Your task to perform on an android device: turn on translation in the chrome app Image 0: 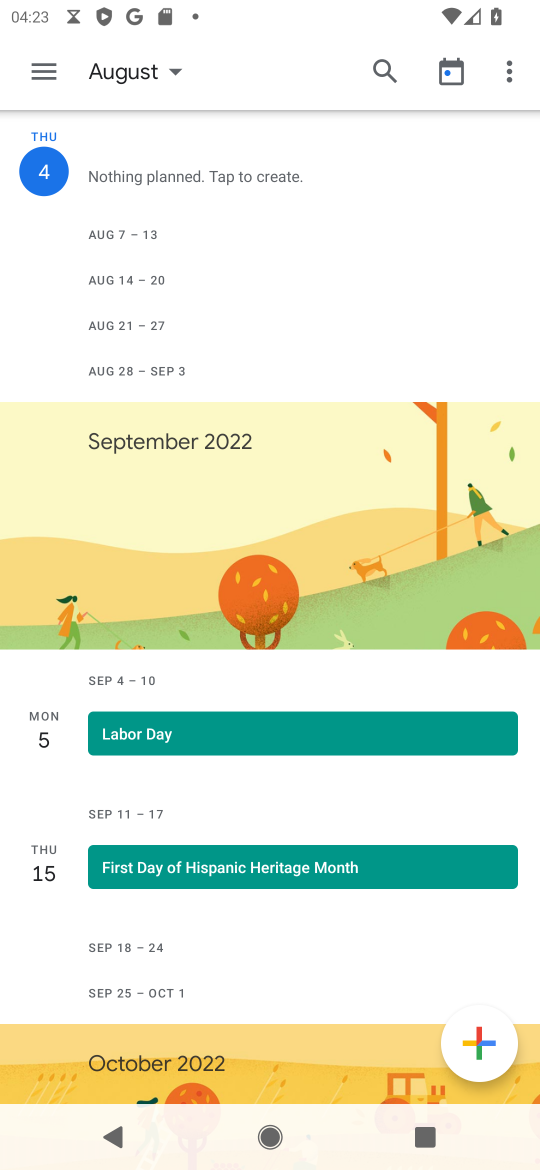
Step 0: press home button
Your task to perform on an android device: turn on translation in the chrome app Image 1: 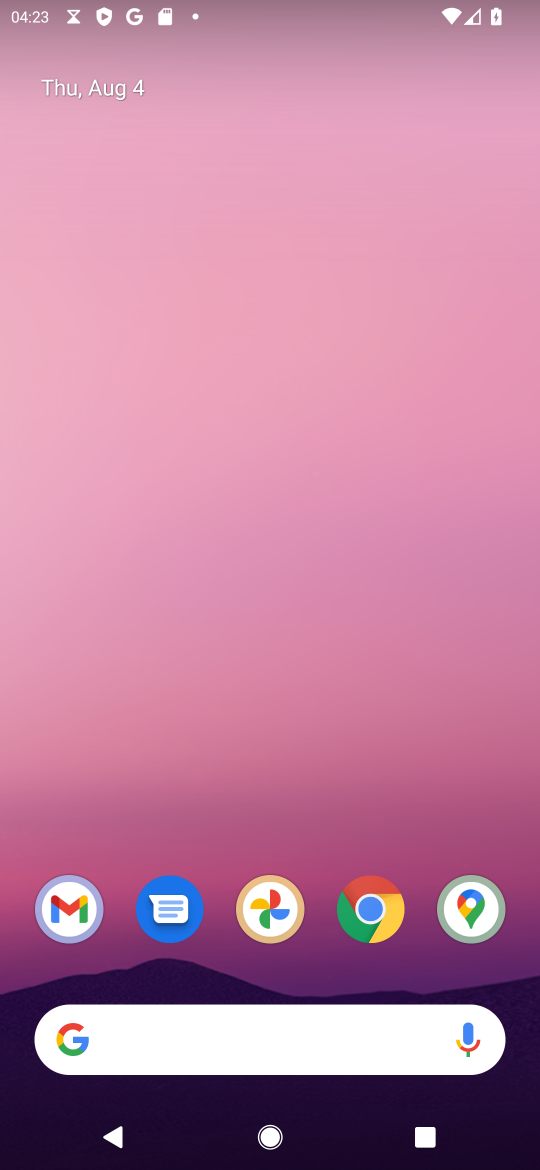
Step 1: click (376, 911)
Your task to perform on an android device: turn on translation in the chrome app Image 2: 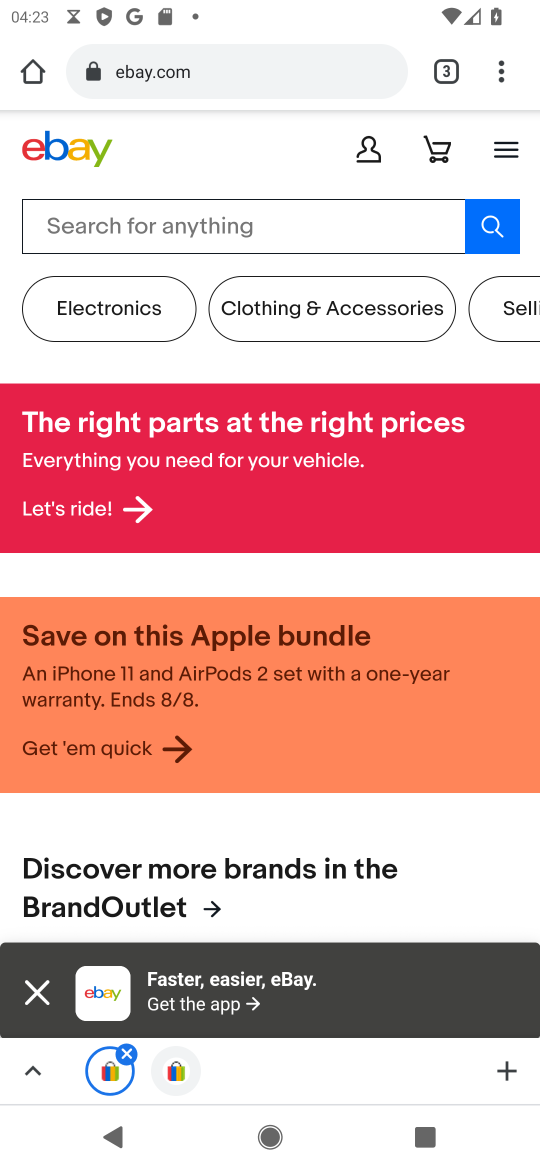
Step 2: drag from (501, 56) to (302, 996)
Your task to perform on an android device: turn on translation in the chrome app Image 3: 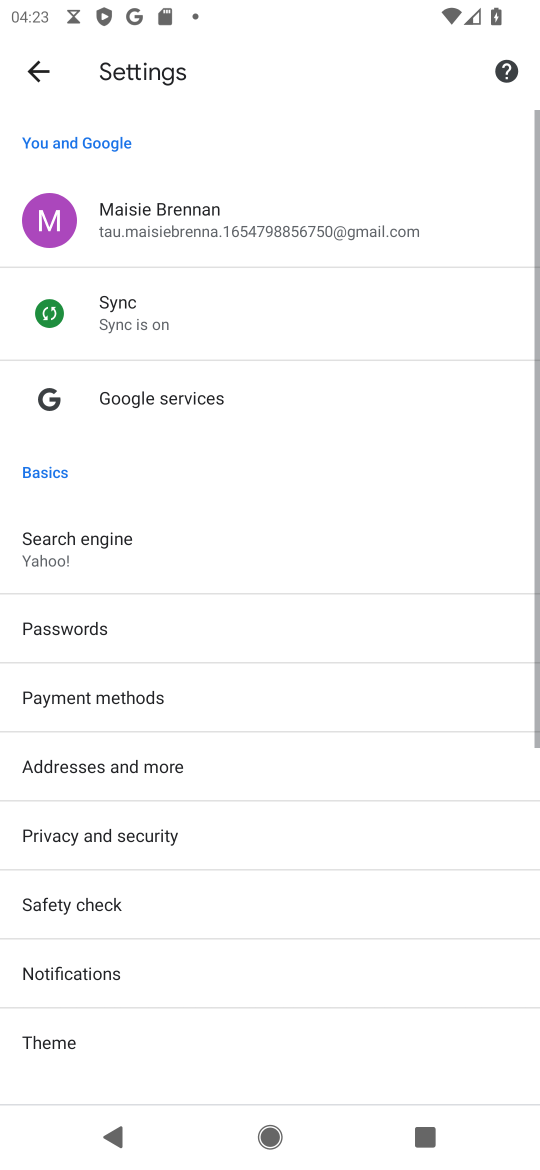
Step 3: drag from (225, 1005) to (383, 329)
Your task to perform on an android device: turn on translation in the chrome app Image 4: 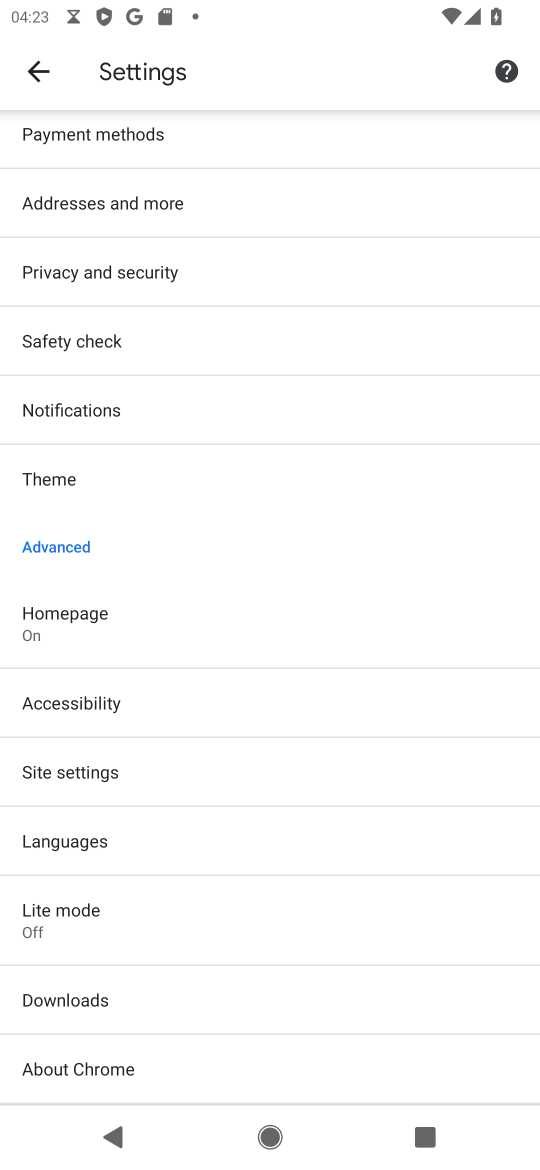
Step 4: click (100, 849)
Your task to perform on an android device: turn on translation in the chrome app Image 5: 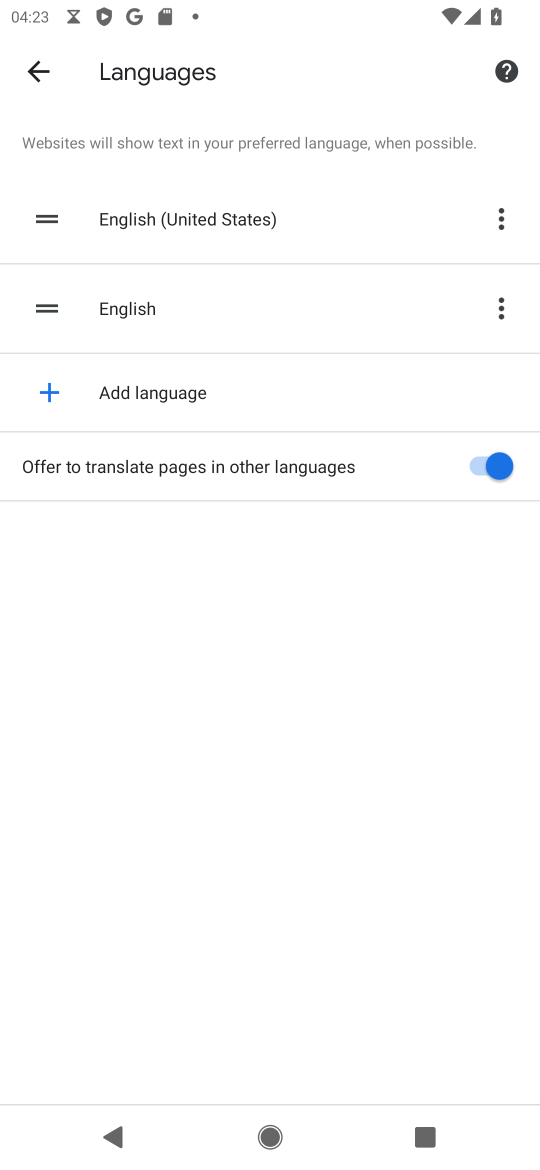
Step 5: task complete